Your task to perform on an android device: When is my next appointment? Image 0: 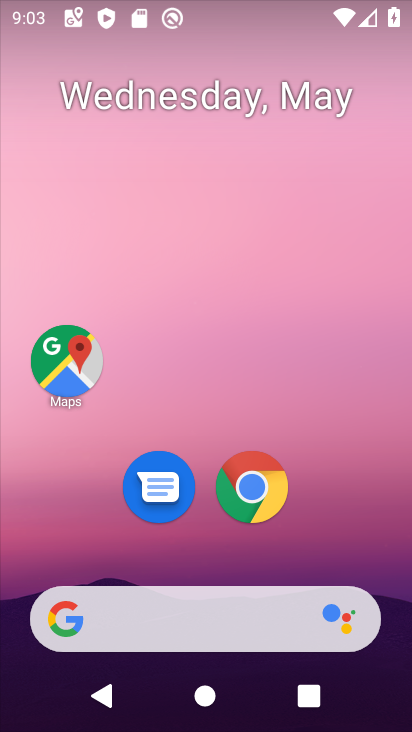
Step 0: drag from (336, 526) to (202, 175)
Your task to perform on an android device: When is my next appointment? Image 1: 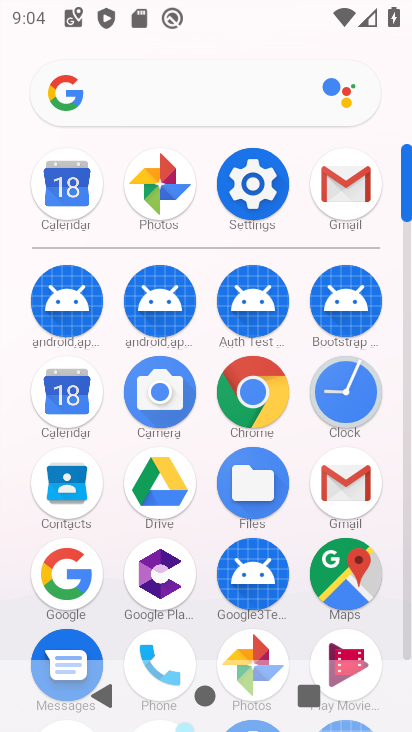
Step 1: click (58, 397)
Your task to perform on an android device: When is my next appointment? Image 2: 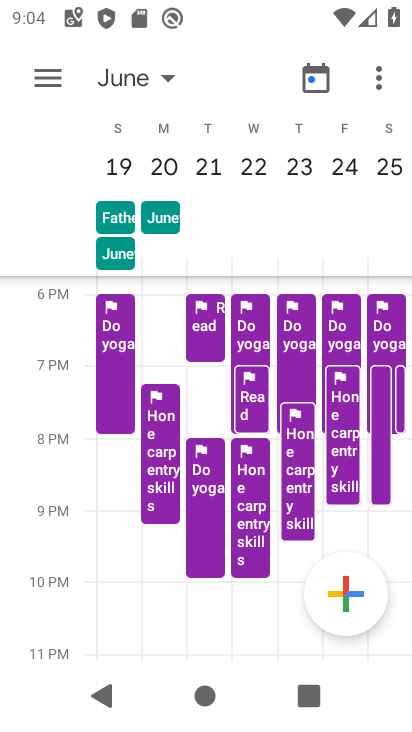
Step 2: click (45, 64)
Your task to perform on an android device: When is my next appointment? Image 3: 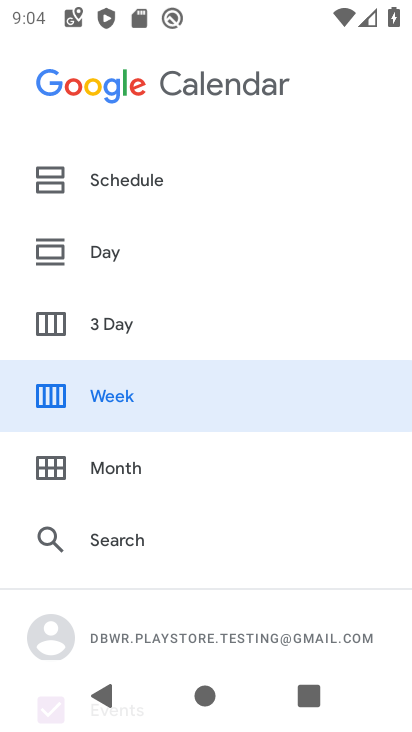
Step 3: click (115, 249)
Your task to perform on an android device: When is my next appointment? Image 4: 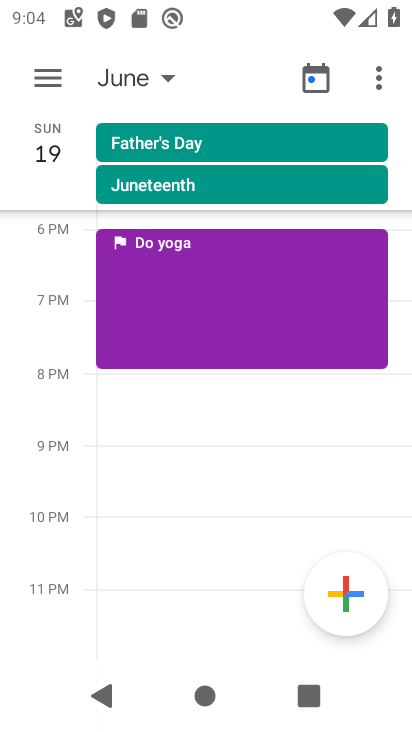
Step 4: click (162, 81)
Your task to perform on an android device: When is my next appointment? Image 5: 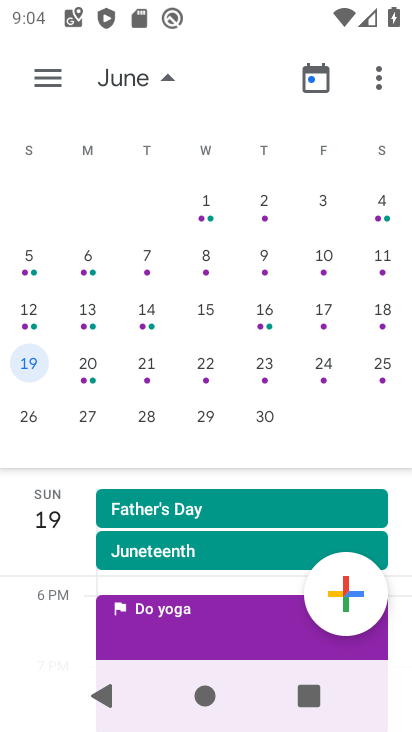
Step 5: task complete